Your task to perform on an android device: Open Google Maps Image 0: 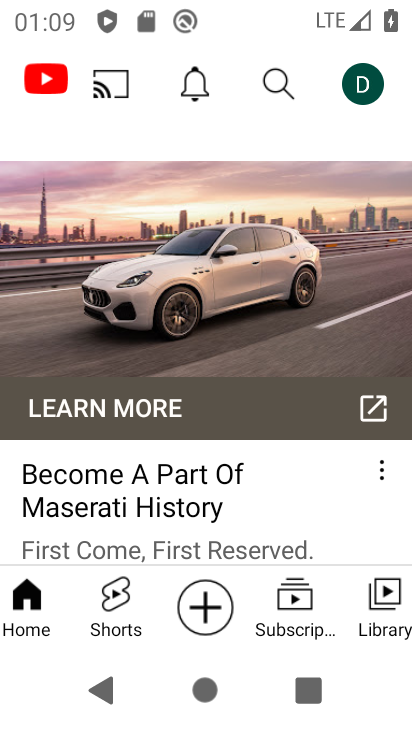
Step 0: press home button
Your task to perform on an android device: Open Google Maps Image 1: 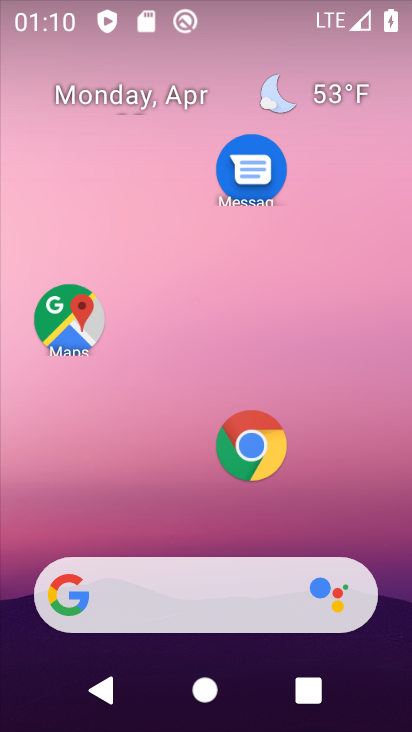
Step 1: click (79, 319)
Your task to perform on an android device: Open Google Maps Image 2: 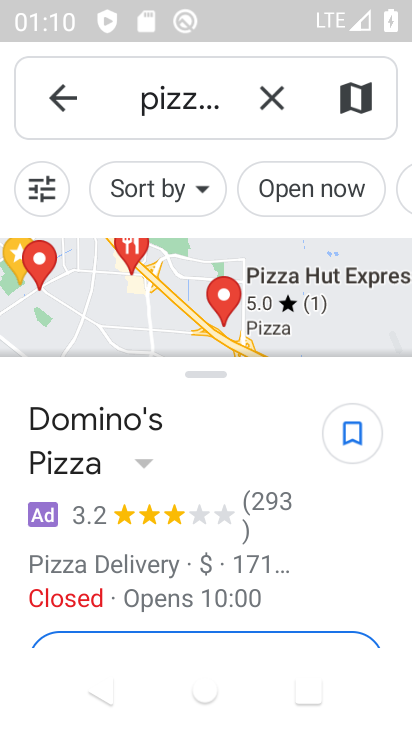
Step 2: click (65, 101)
Your task to perform on an android device: Open Google Maps Image 3: 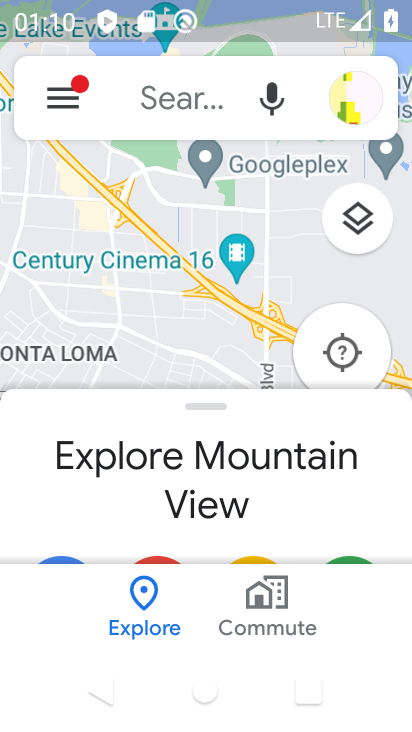
Step 3: task complete